Your task to perform on an android device: delete a single message in the gmail app Image 0: 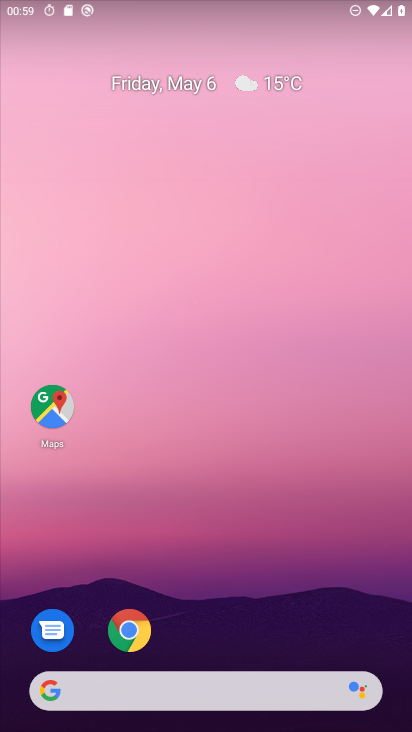
Step 0: drag from (289, 622) to (264, 92)
Your task to perform on an android device: delete a single message in the gmail app Image 1: 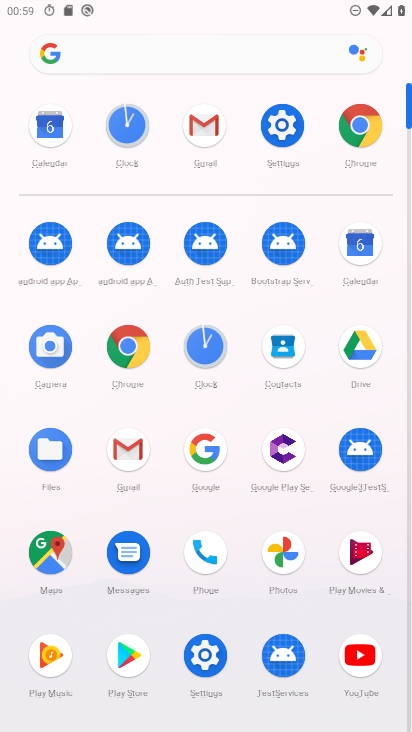
Step 1: click (211, 132)
Your task to perform on an android device: delete a single message in the gmail app Image 2: 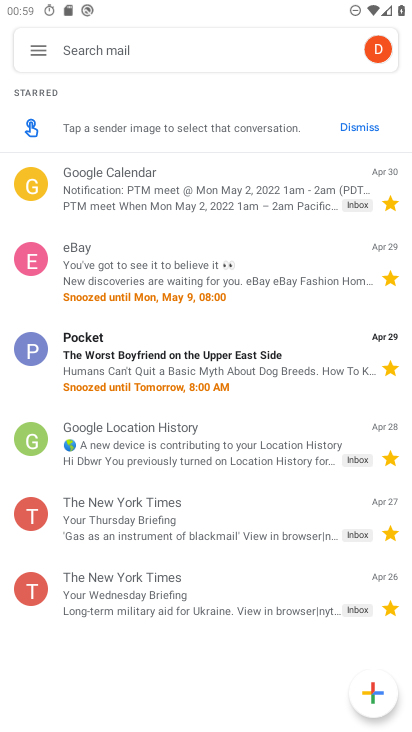
Step 2: click (254, 189)
Your task to perform on an android device: delete a single message in the gmail app Image 3: 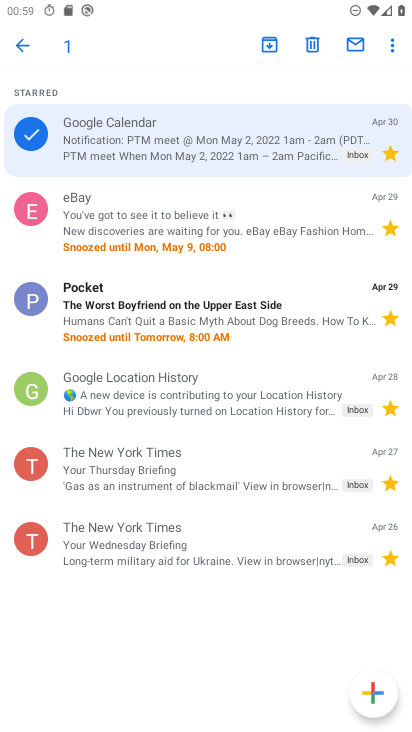
Step 3: click (315, 45)
Your task to perform on an android device: delete a single message in the gmail app Image 4: 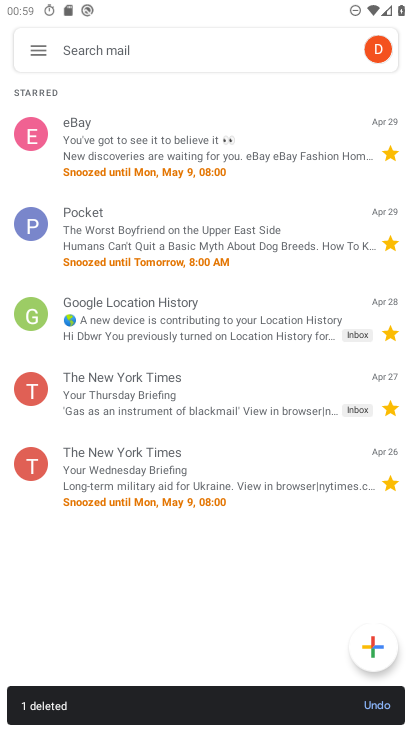
Step 4: task complete